Your task to perform on an android device: see tabs open on other devices in the chrome app Image 0: 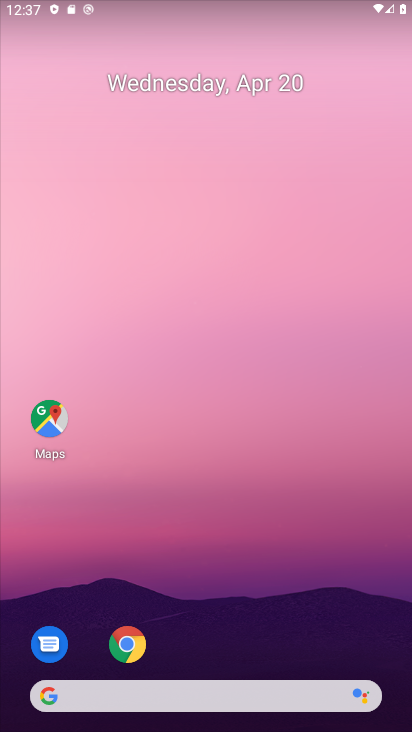
Step 0: click (135, 645)
Your task to perform on an android device: see tabs open on other devices in the chrome app Image 1: 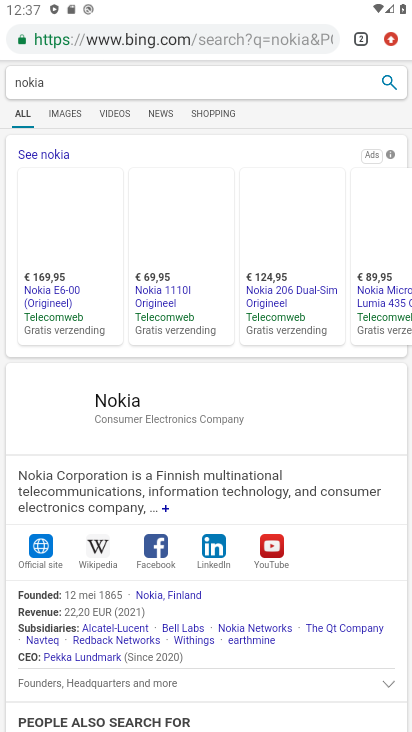
Step 1: press back button
Your task to perform on an android device: see tabs open on other devices in the chrome app Image 2: 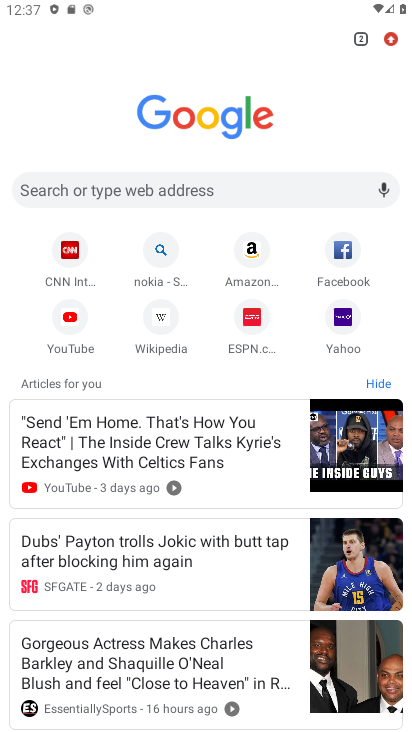
Step 2: click (394, 34)
Your task to perform on an android device: see tabs open on other devices in the chrome app Image 3: 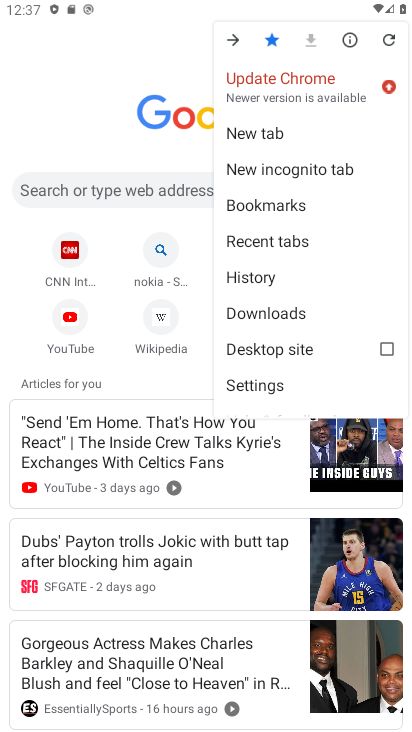
Step 3: click (288, 233)
Your task to perform on an android device: see tabs open on other devices in the chrome app Image 4: 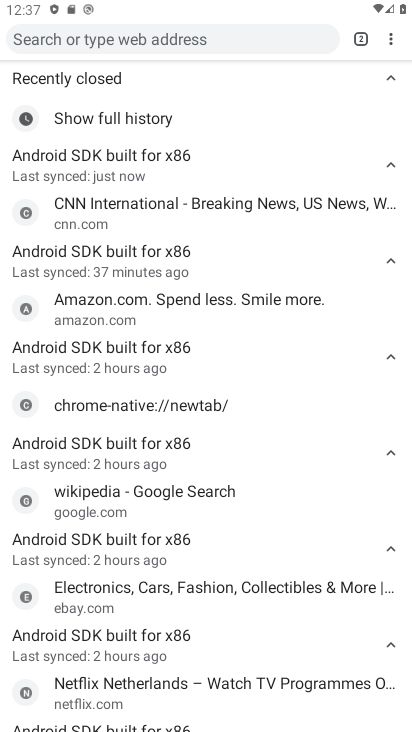
Step 4: task complete